Your task to perform on an android device: What's the weather going to be this weekend? Image 0: 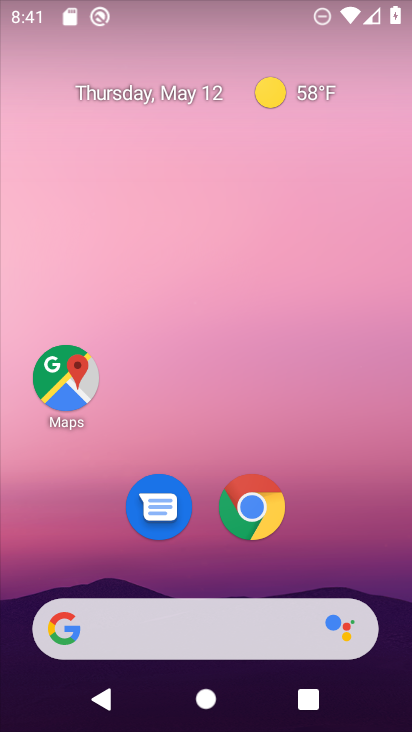
Step 0: drag from (212, 559) to (218, 200)
Your task to perform on an android device: What's the weather going to be this weekend? Image 1: 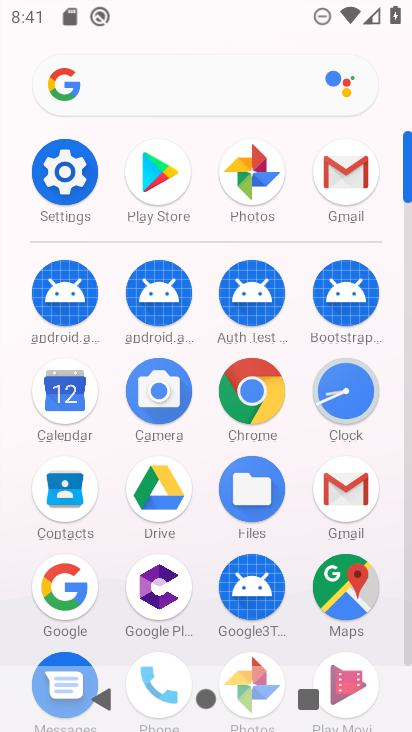
Step 1: drag from (169, 533) to (201, 344)
Your task to perform on an android device: What's the weather going to be this weekend? Image 2: 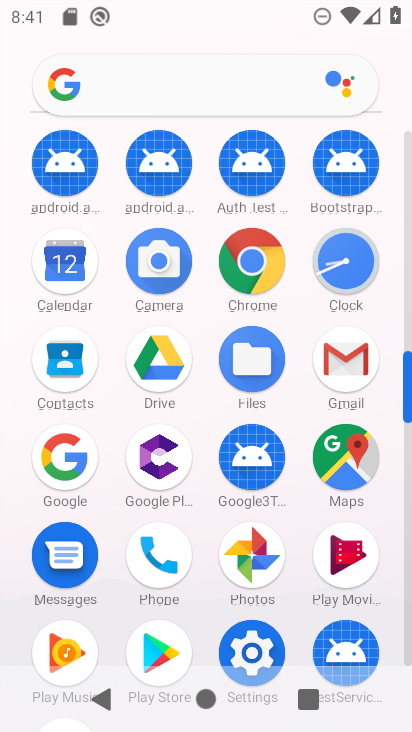
Step 2: click (89, 465)
Your task to perform on an android device: What's the weather going to be this weekend? Image 3: 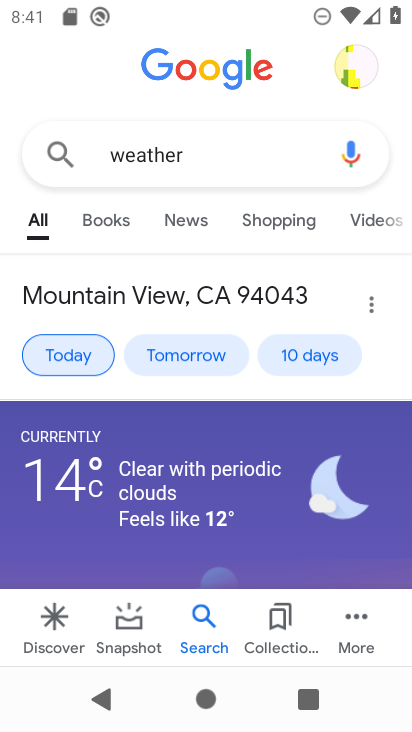
Step 3: click (294, 356)
Your task to perform on an android device: What's the weather going to be this weekend? Image 4: 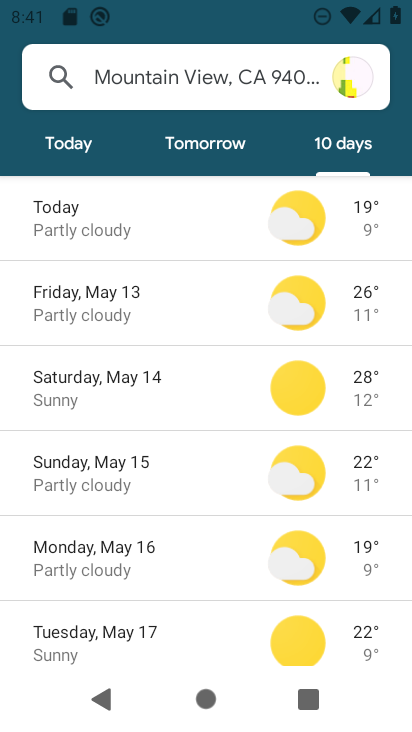
Step 4: task complete